Your task to perform on an android device: Open ESPN.com Image 0: 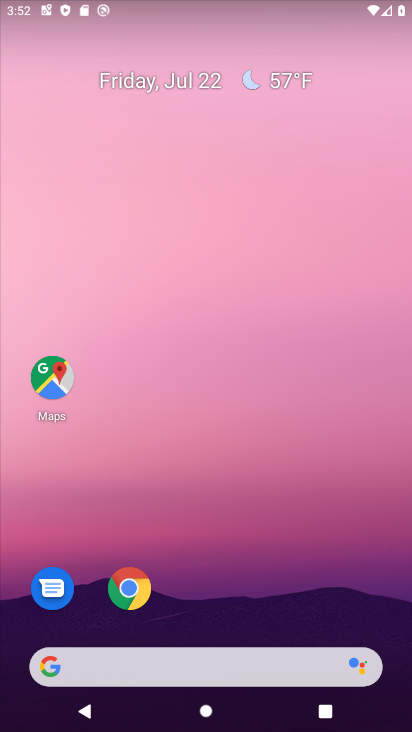
Step 0: click (144, 585)
Your task to perform on an android device: Open ESPN.com Image 1: 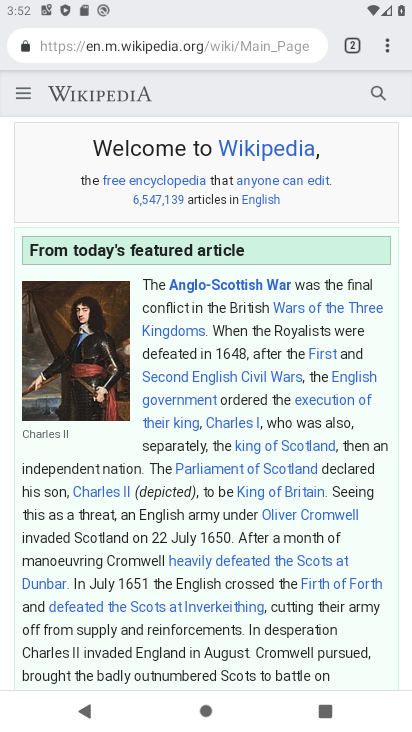
Step 1: click (355, 47)
Your task to perform on an android device: Open ESPN.com Image 2: 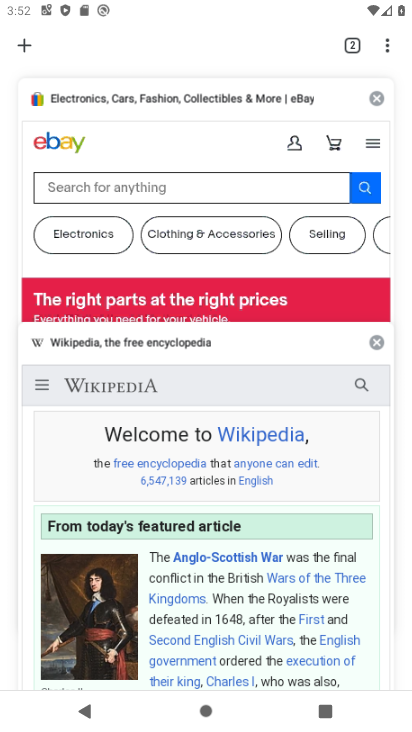
Step 2: click (25, 47)
Your task to perform on an android device: Open ESPN.com Image 3: 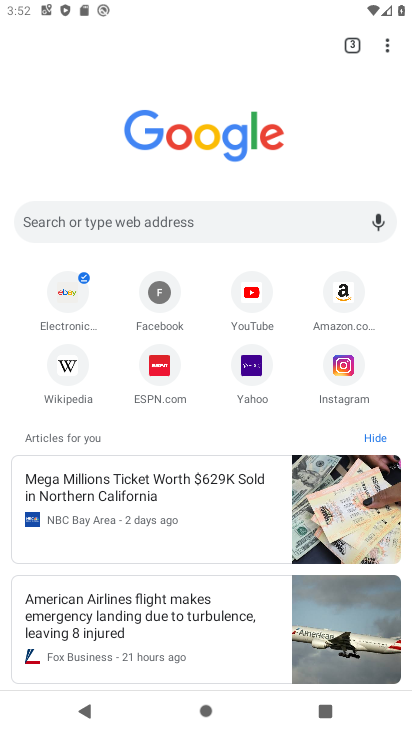
Step 3: click (149, 383)
Your task to perform on an android device: Open ESPN.com Image 4: 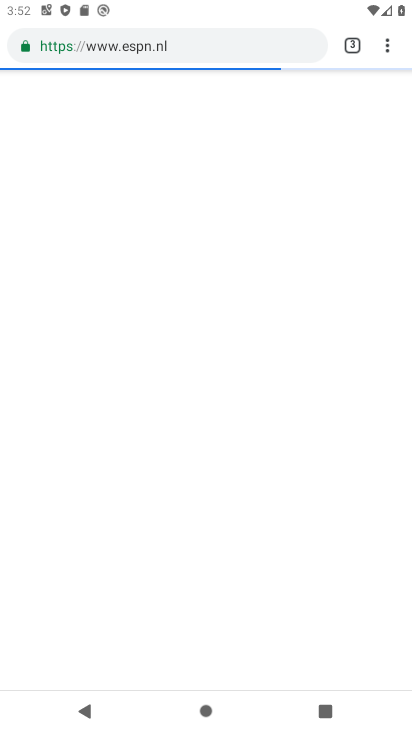
Step 4: task complete